Your task to perform on an android device: set default search engine in the chrome app Image 0: 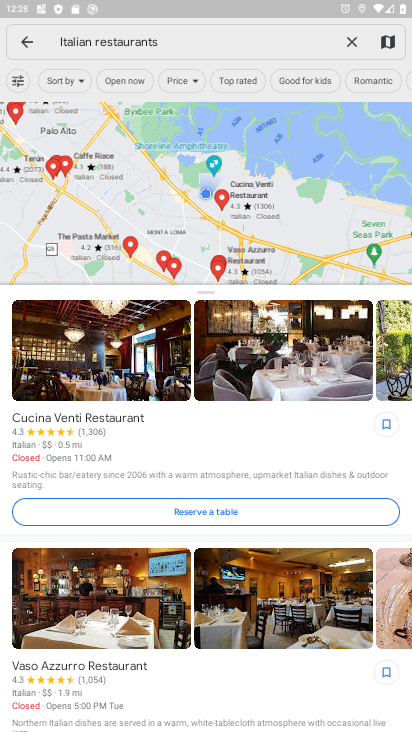
Step 0: press home button
Your task to perform on an android device: set default search engine in the chrome app Image 1: 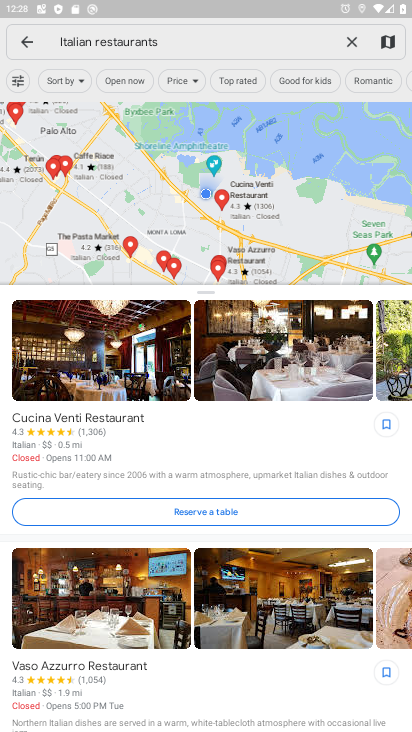
Step 1: press home button
Your task to perform on an android device: set default search engine in the chrome app Image 2: 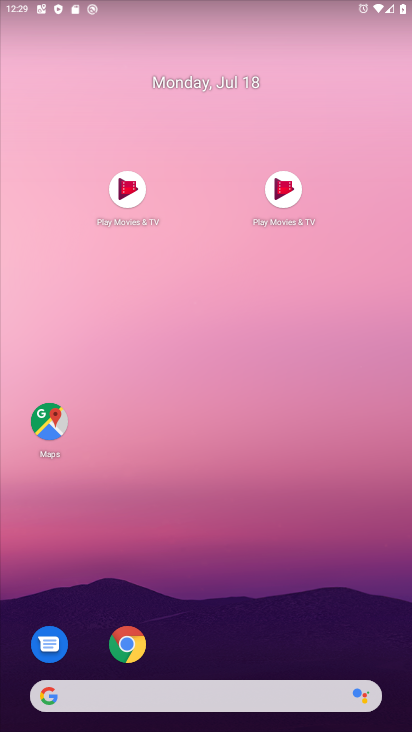
Step 2: drag from (315, 591) to (244, 87)
Your task to perform on an android device: set default search engine in the chrome app Image 3: 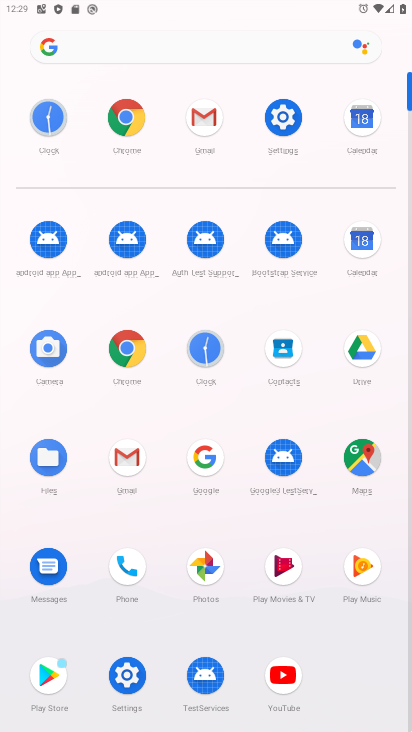
Step 3: click (119, 352)
Your task to perform on an android device: set default search engine in the chrome app Image 4: 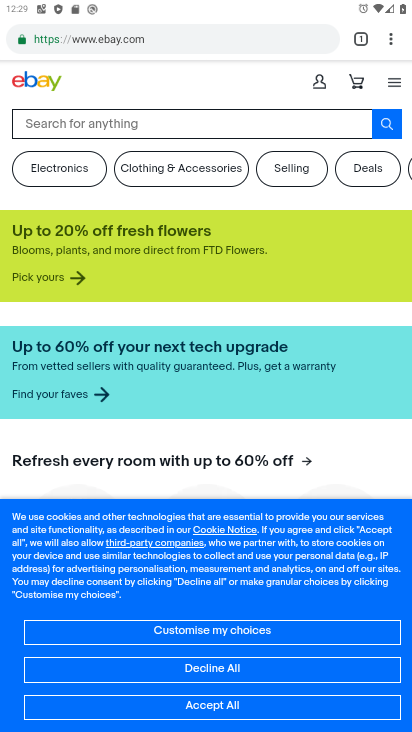
Step 4: drag from (392, 32) to (245, 468)
Your task to perform on an android device: set default search engine in the chrome app Image 5: 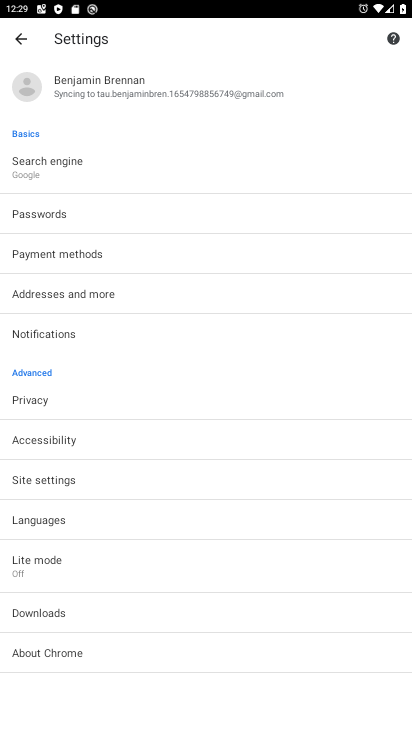
Step 5: click (114, 171)
Your task to perform on an android device: set default search engine in the chrome app Image 6: 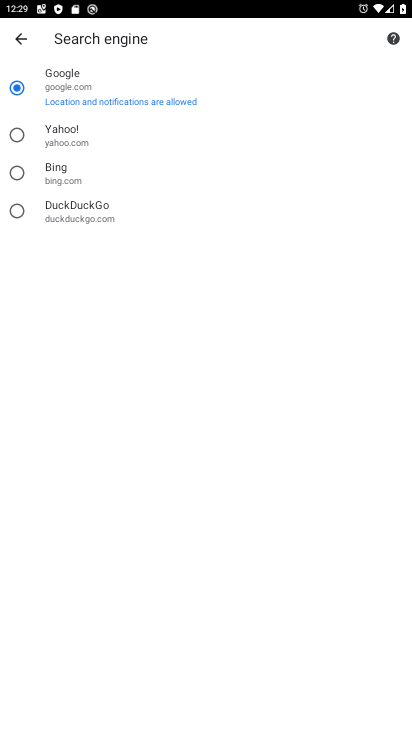
Step 6: task complete